Your task to perform on an android device: check data usage Image 0: 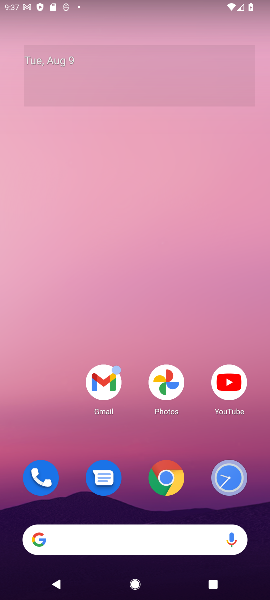
Step 0: drag from (58, 243) to (77, 132)
Your task to perform on an android device: check data usage Image 1: 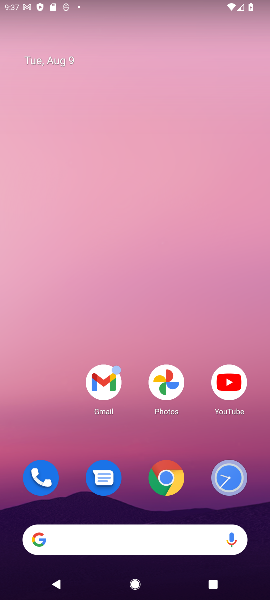
Step 1: click (183, 78)
Your task to perform on an android device: check data usage Image 2: 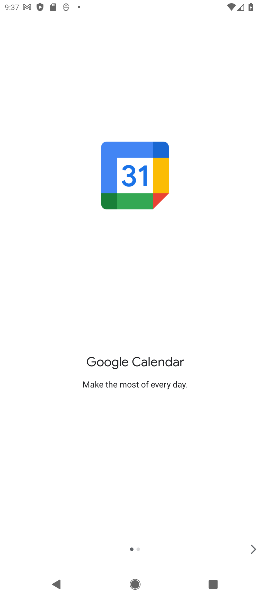
Step 2: press home button
Your task to perform on an android device: check data usage Image 3: 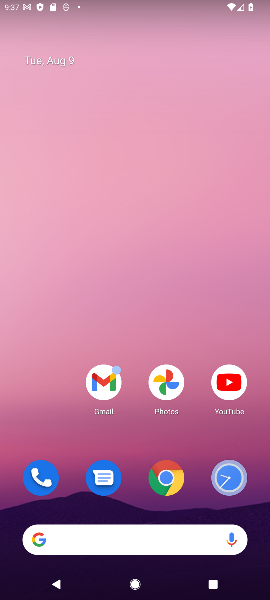
Step 3: drag from (135, 330) to (149, 120)
Your task to perform on an android device: check data usage Image 4: 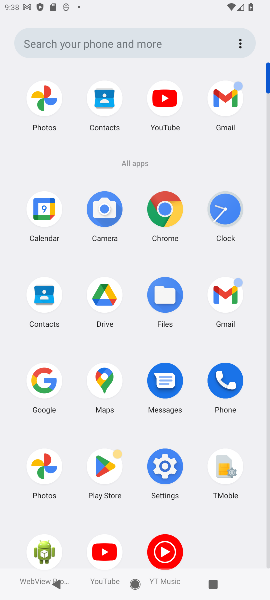
Step 4: click (164, 470)
Your task to perform on an android device: check data usage Image 5: 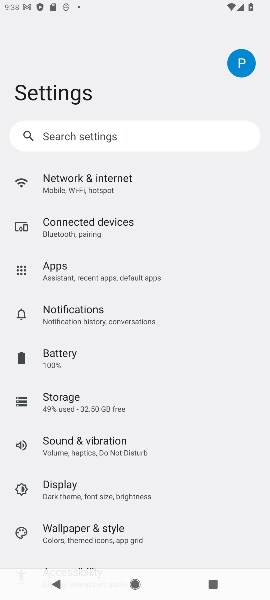
Step 5: click (124, 179)
Your task to perform on an android device: check data usage Image 6: 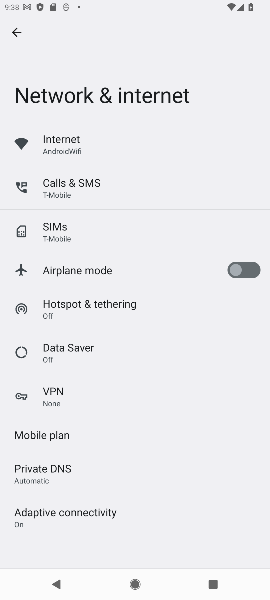
Step 6: task complete